Your task to perform on an android device: Do I have any events this weekend? Image 0: 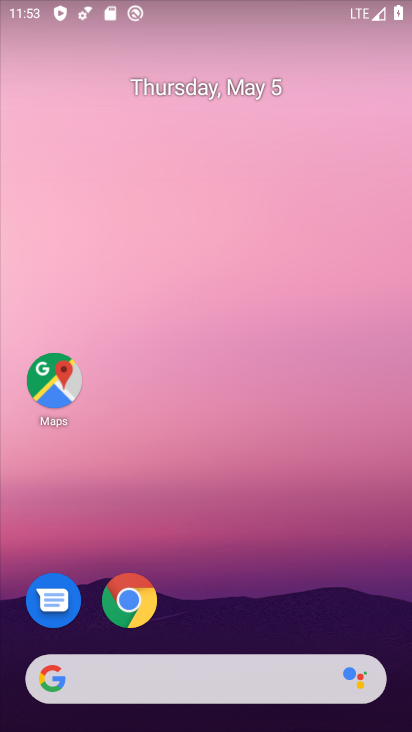
Step 0: drag from (349, 618) to (300, 35)
Your task to perform on an android device: Do I have any events this weekend? Image 1: 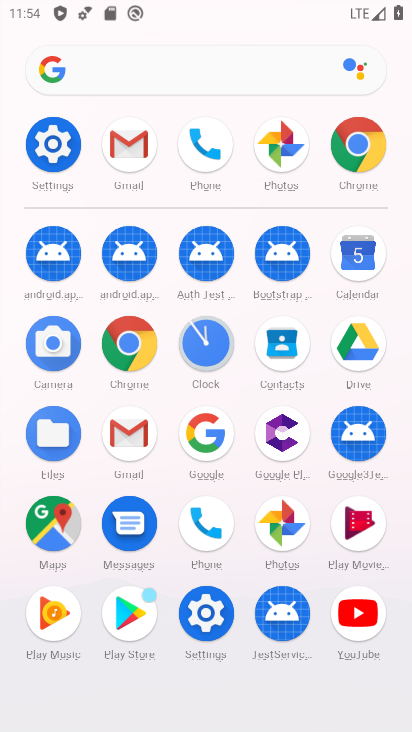
Step 1: click (364, 263)
Your task to perform on an android device: Do I have any events this weekend? Image 2: 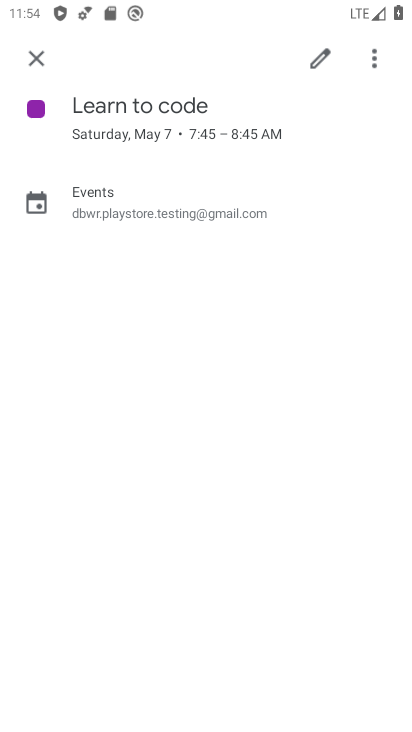
Step 2: task complete